Your task to perform on an android device: open wifi settings Image 0: 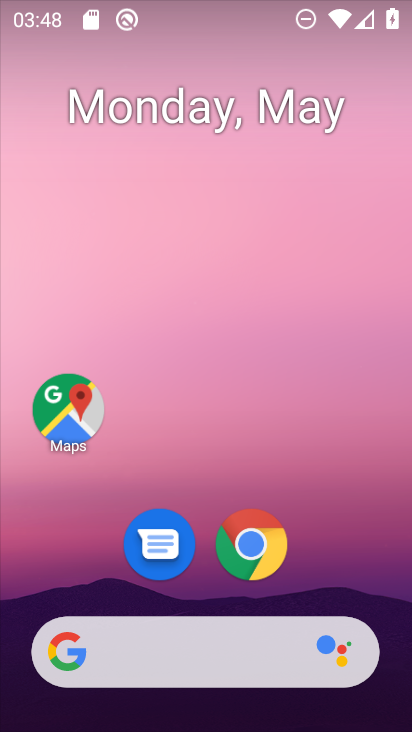
Step 0: drag from (380, 579) to (387, 236)
Your task to perform on an android device: open wifi settings Image 1: 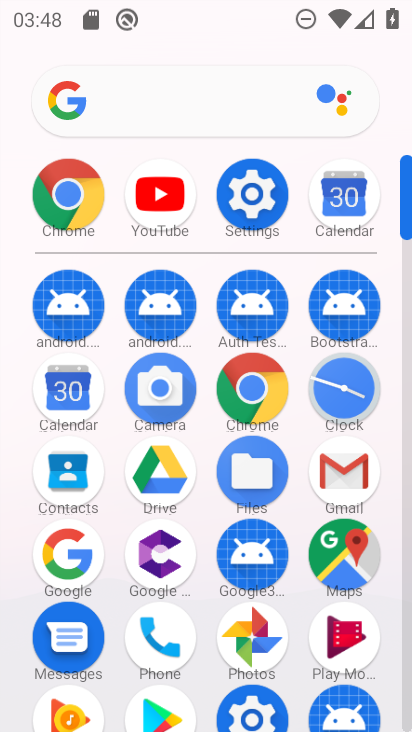
Step 1: click (260, 215)
Your task to perform on an android device: open wifi settings Image 2: 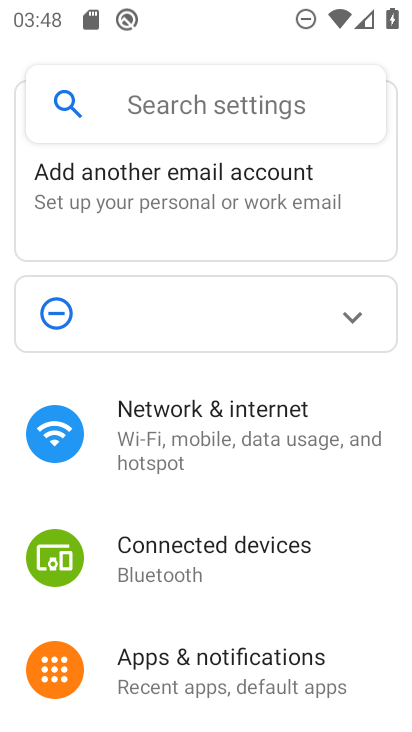
Step 2: drag from (369, 610) to (374, 488)
Your task to perform on an android device: open wifi settings Image 3: 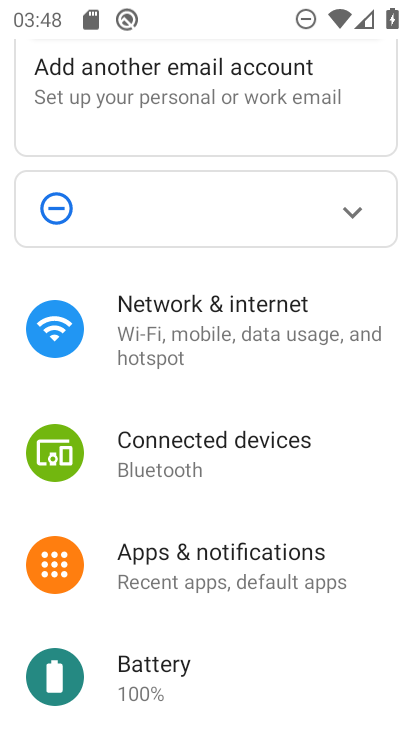
Step 3: drag from (350, 647) to (357, 506)
Your task to perform on an android device: open wifi settings Image 4: 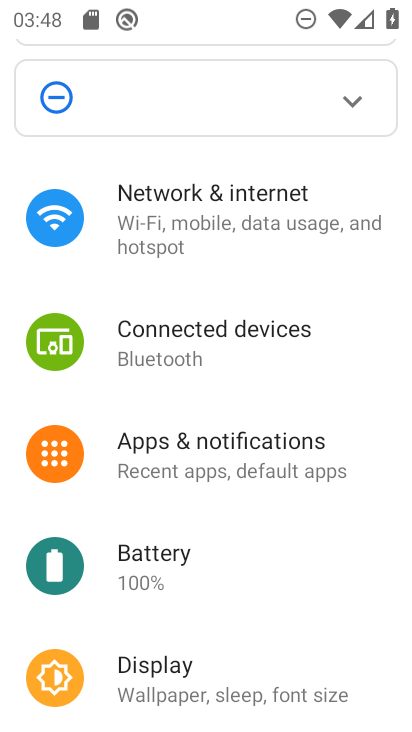
Step 4: drag from (368, 627) to (376, 473)
Your task to perform on an android device: open wifi settings Image 5: 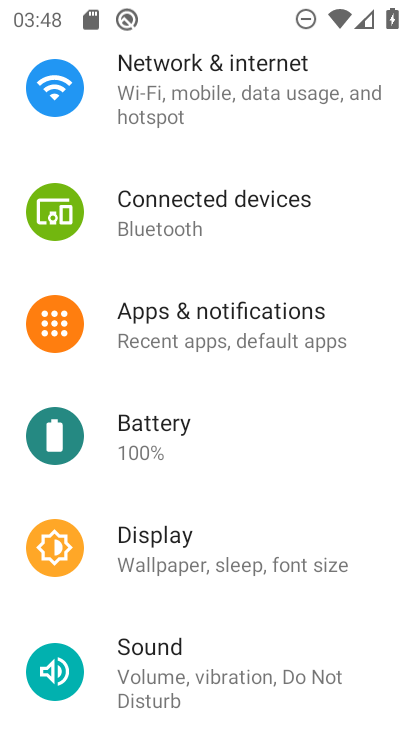
Step 5: drag from (364, 649) to (357, 511)
Your task to perform on an android device: open wifi settings Image 6: 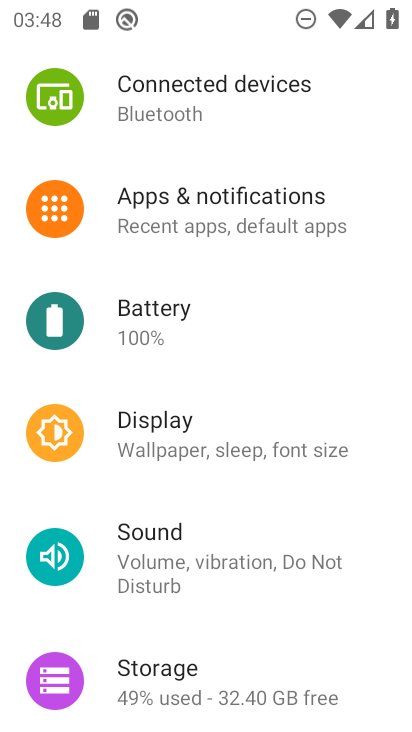
Step 6: drag from (346, 645) to (357, 530)
Your task to perform on an android device: open wifi settings Image 7: 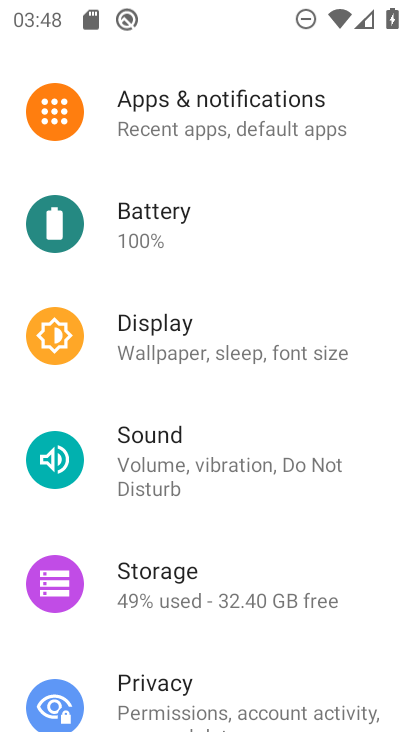
Step 7: drag from (336, 652) to (358, 488)
Your task to perform on an android device: open wifi settings Image 8: 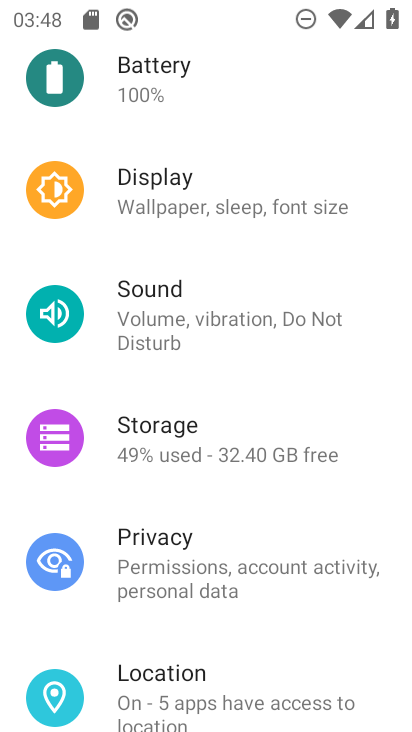
Step 8: drag from (350, 644) to (357, 439)
Your task to perform on an android device: open wifi settings Image 9: 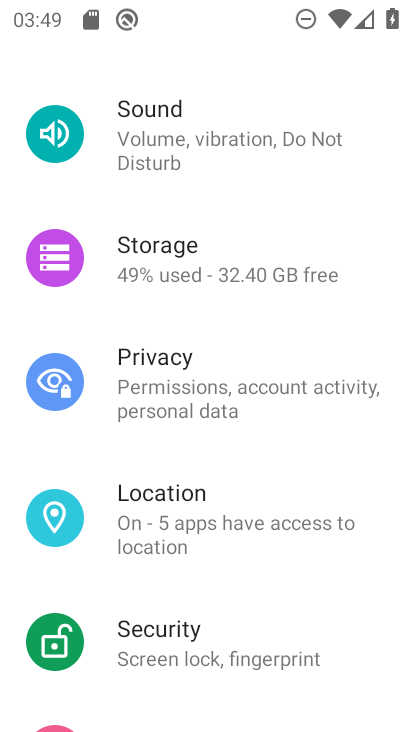
Step 9: drag from (359, 374) to (369, 515)
Your task to perform on an android device: open wifi settings Image 10: 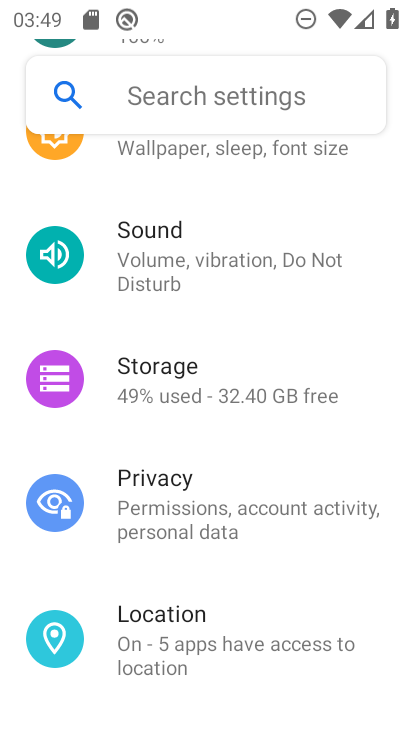
Step 10: drag from (369, 335) to (365, 459)
Your task to perform on an android device: open wifi settings Image 11: 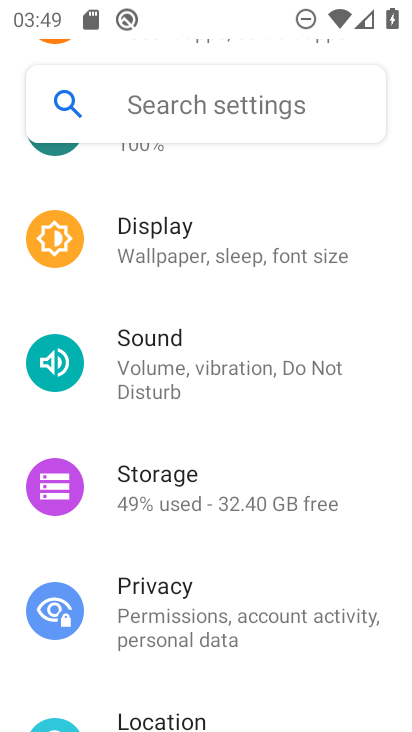
Step 11: drag from (360, 322) to (362, 454)
Your task to perform on an android device: open wifi settings Image 12: 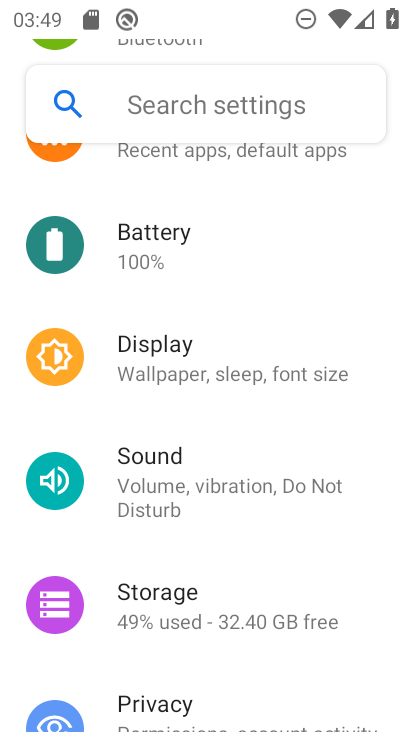
Step 12: drag from (362, 301) to (370, 438)
Your task to perform on an android device: open wifi settings Image 13: 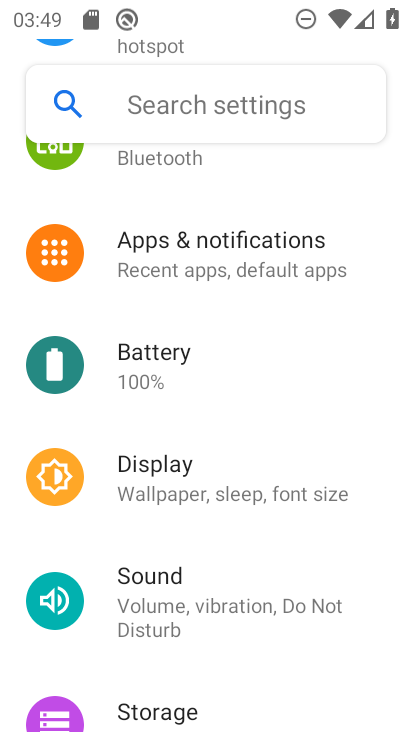
Step 13: drag from (373, 254) to (374, 413)
Your task to perform on an android device: open wifi settings Image 14: 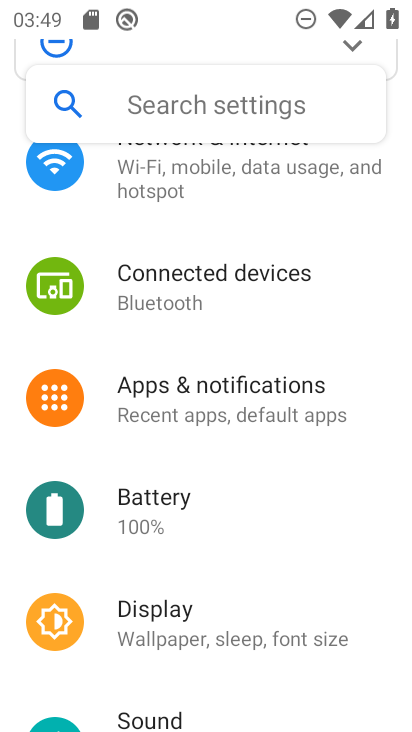
Step 14: drag from (358, 252) to (365, 391)
Your task to perform on an android device: open wifi settings Image 15: 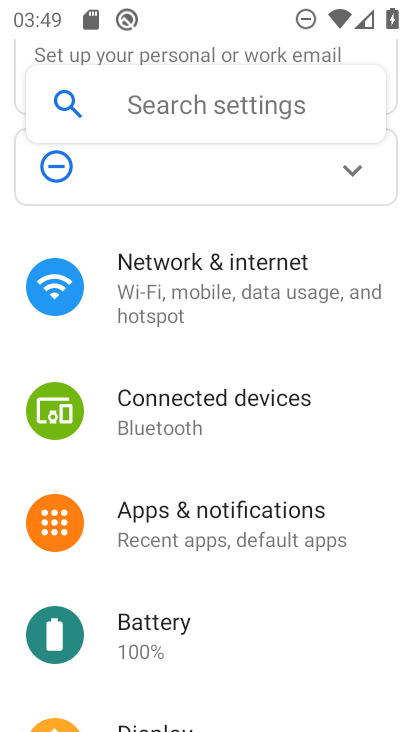
Step 15: click (319, 281)
Your task to perform on an android device: open wifi settings Image 16: 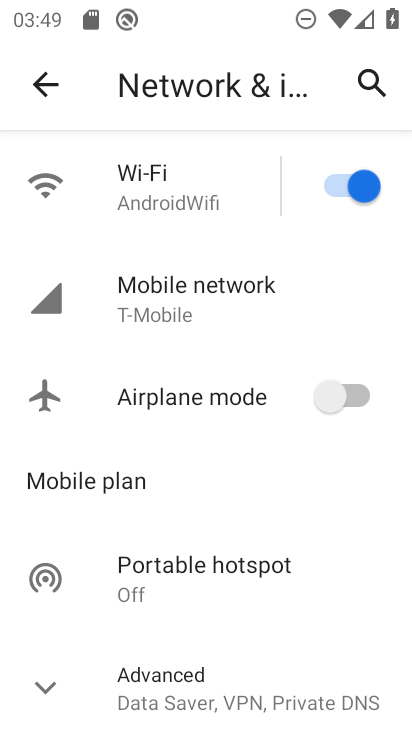
Step 16: click (165, 202)
Your task to perform on an android device: open wifi settings Image 17: 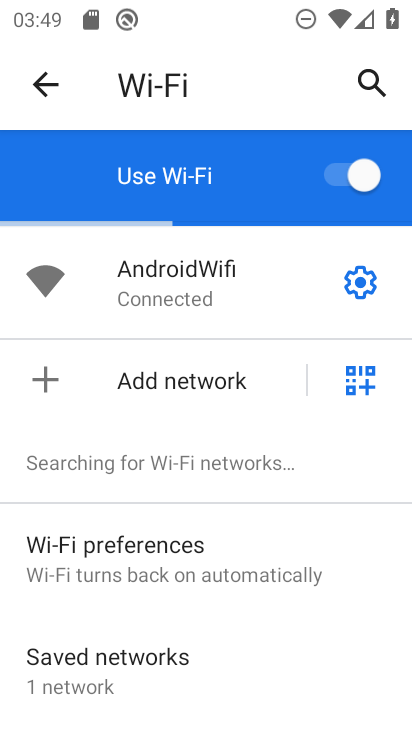
Step 17: task complete